Your task to perform on an android device: remove spam from my inbox in the gmail app Image 0: 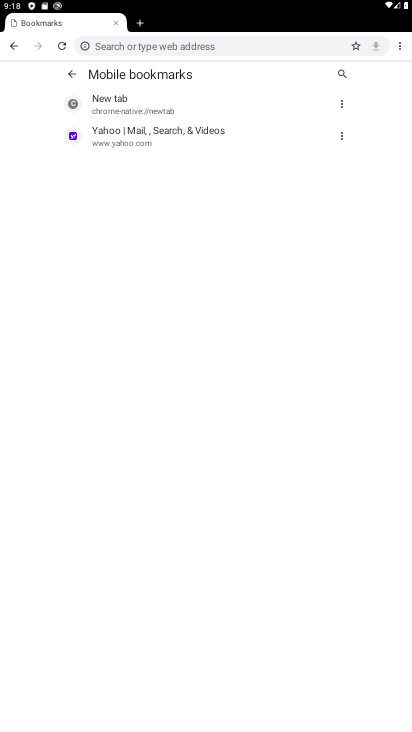
Step 0: press home button
Your task to perform on an android device: remove spam from my inbox in the gmail app Image 1: 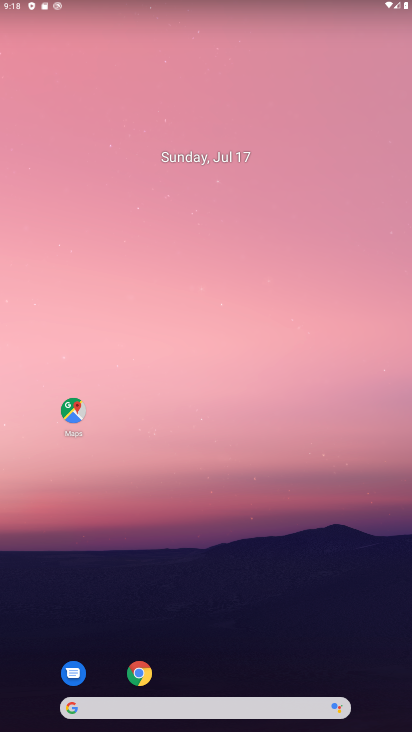
Step 1: drag from (204, 679) to (155, 0)
Your task to perform on an android device: remove spam from my inbox in the gmail app Image 2: 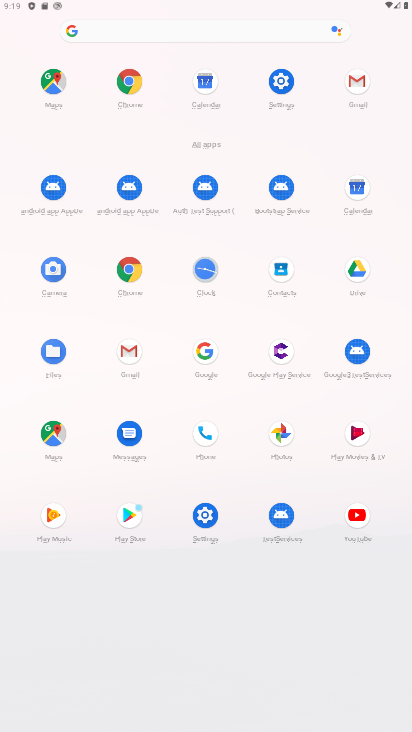
Step 2: click (356, 72)
Your task to perform on an android device: remove spam from my inbox in the gmail app Image 3: 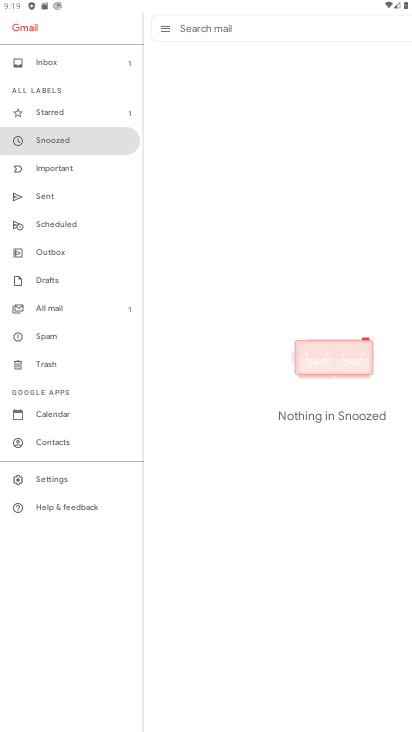
Step 3: click (55, 333)
Your task to perform on an android device: remove spam from my inbox in the gmail app Image 4: 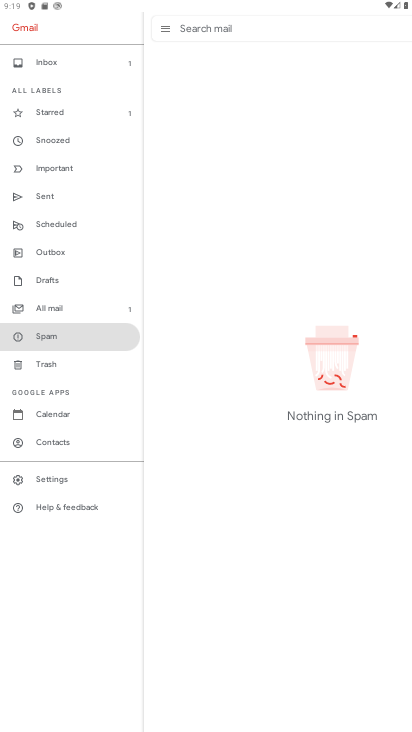
Step 4: task complete